Your task to perform on an android device: find which apps use the phone's location Image 0: 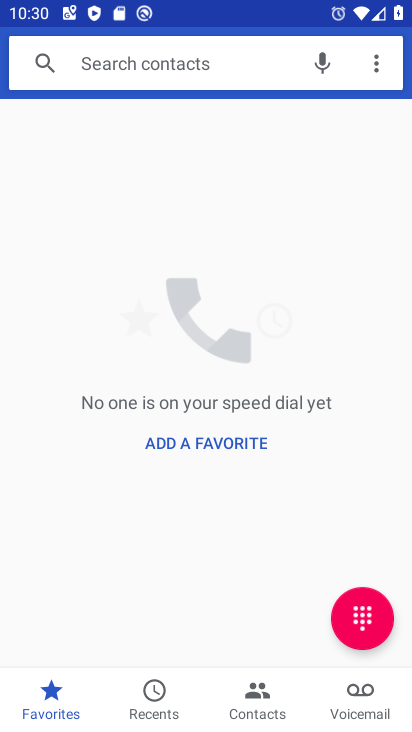
Step 0: press home button
Your task to perform on an android device: find which apps use the phone's location Image 1: 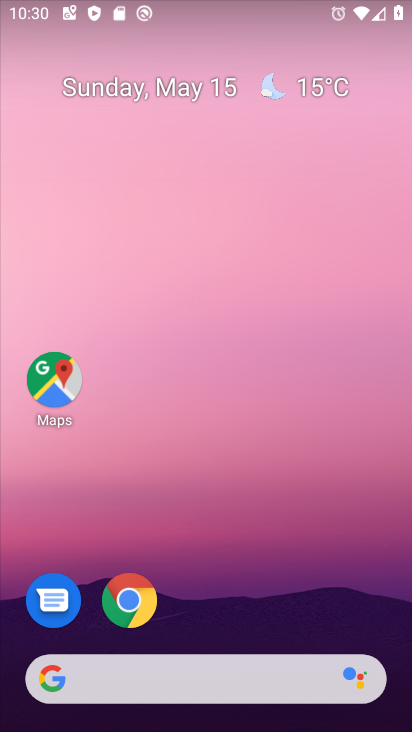
Step 1: drag from (337, 593) to (319, 120)
Your task to perform on an android device: find which apps use the phone's location Image 2: 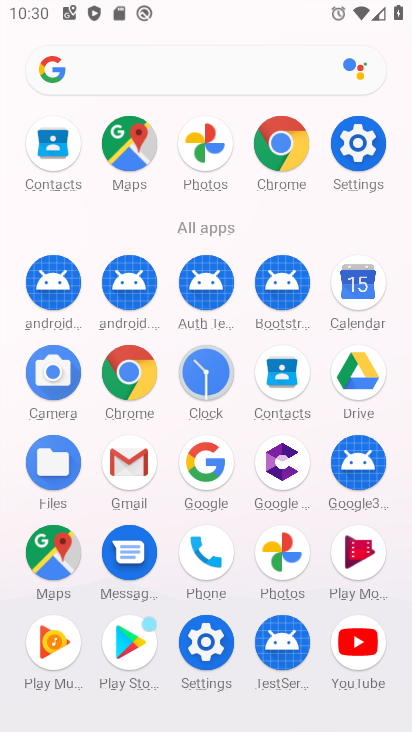
Step 2: click (374, 153)
Your task to perform on an android device: find which apps use the phone's location Image 3: 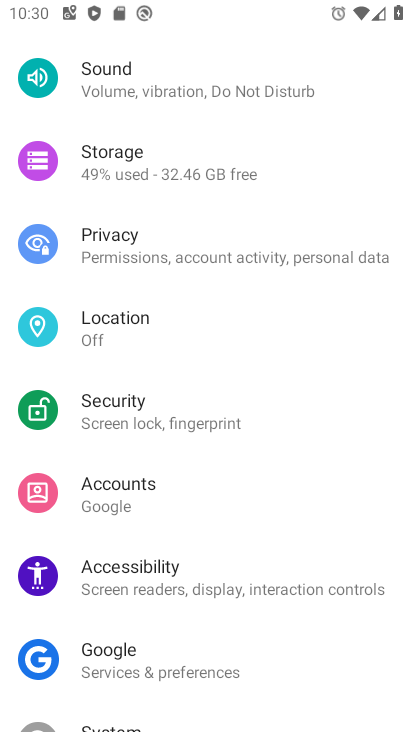
Step 3: click (175, 317)
Your task to perform on an android device: find which apps use the phone's location Image 4: 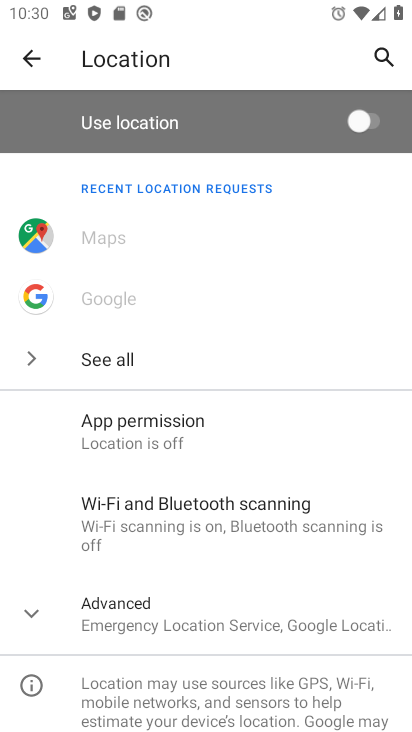
Step 4: click (176, 434)
Your task to perform on an android device: find which apps use the phone's location Image 5: 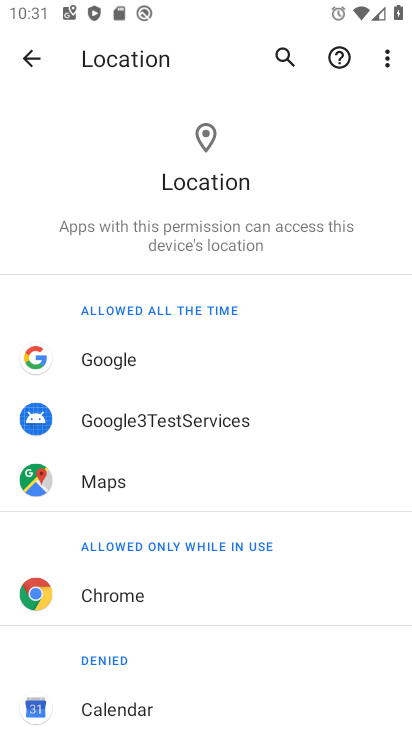
Step 5: drag from (314, 636) to (328, 479)
Your task to perform on an android device: find which apps use the phone's location Image 6: 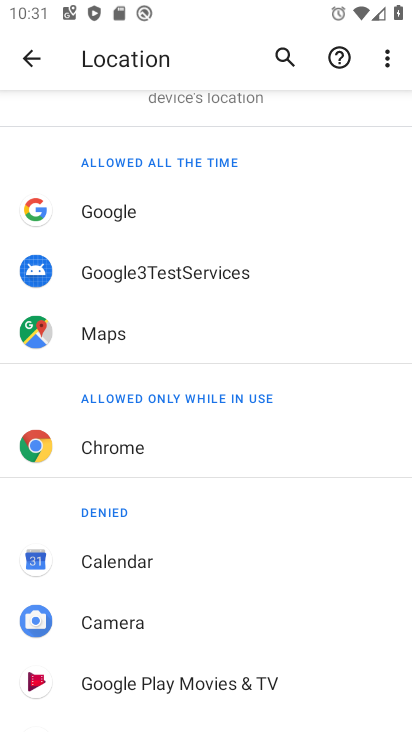
Step 6: drag from (337, 670) to (338, 442)
Your task to perform on an android device: find which apps use the phone's location Image 7: 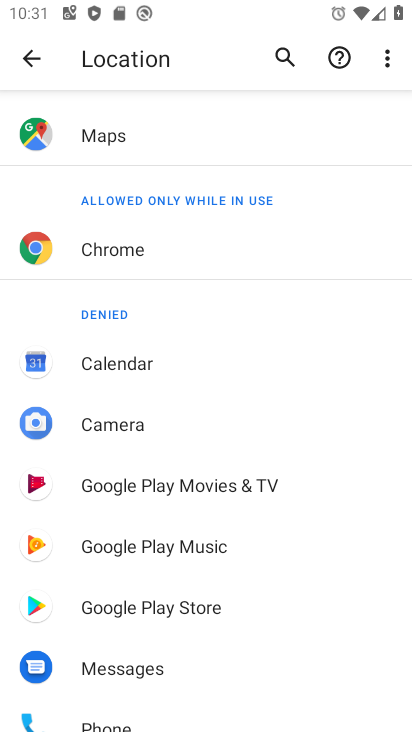
Step 7: drag from (320, 648) to (325, 451)
Your task to perform on an android device: find which apps use the phone's location Image 8: 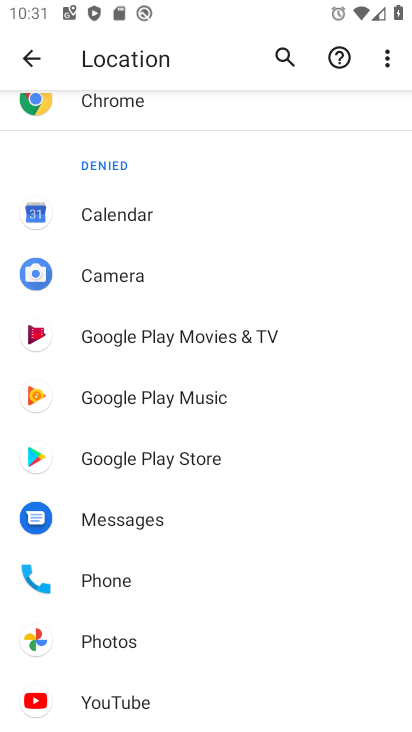
Step 8: click (97, 644)
Your task to perform on an android device: find which apps use the phone's location Image 9: 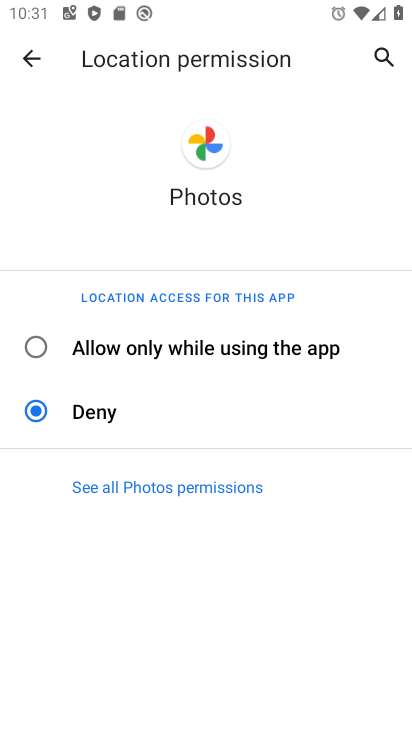
Step 9: click (39, 341)
Your task to perform on an android device: find which apps use the phone's location Image 10: 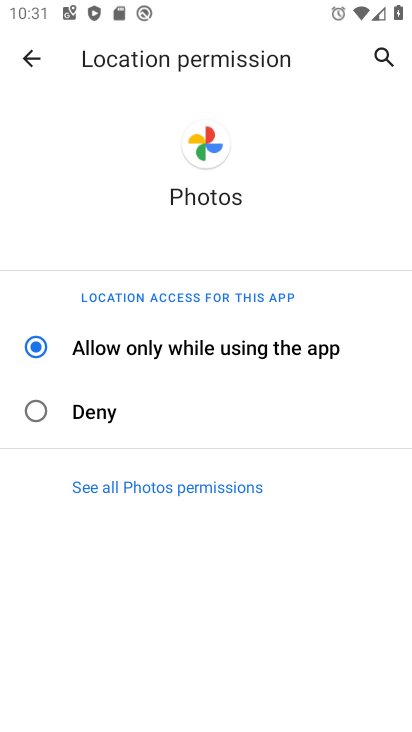
Step 10: task complete